Your task to perform on an android device: Open calendar and show me the first week of next month Image 0: 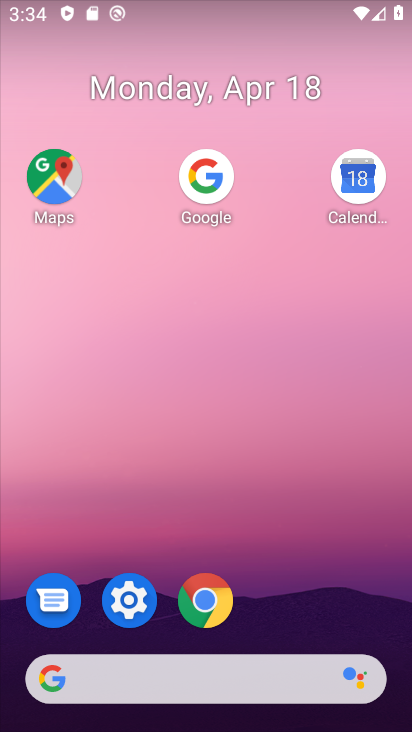
Step 0: click (356, 177)
Your task to perform on an android device: Open calendar and show me the first week of next month Image 1: 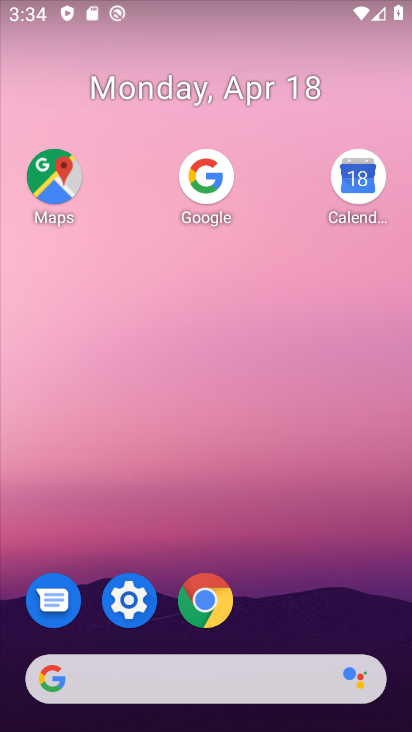
Step 1: click (356, 177)
Your task to perform on an android device: Open calendar and show me the first week of next month Image 2: 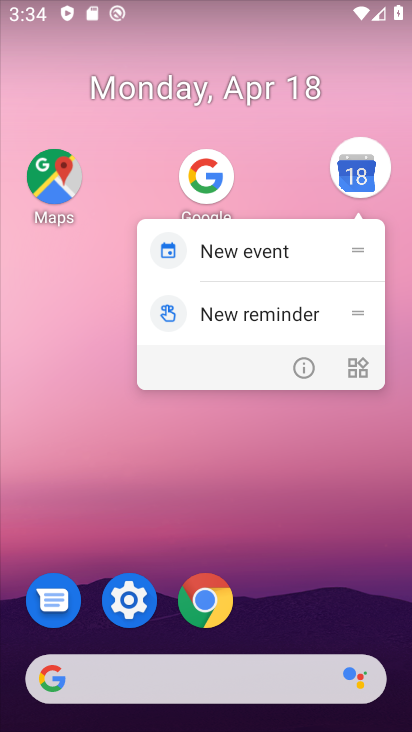
Step 2: click (359, 167)
Your task to perform on an android device: Open calendar and show me the first week of next month Image 3: 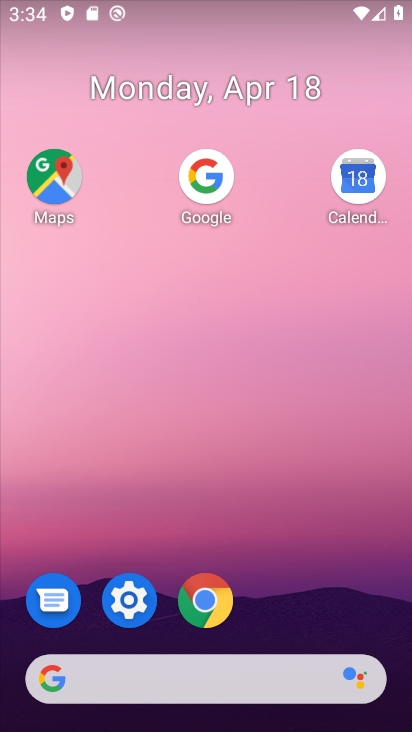
Step 3: click (358, 186)
Your task to perform on an android device: Open calendar and show me the first week of next month Image 4: 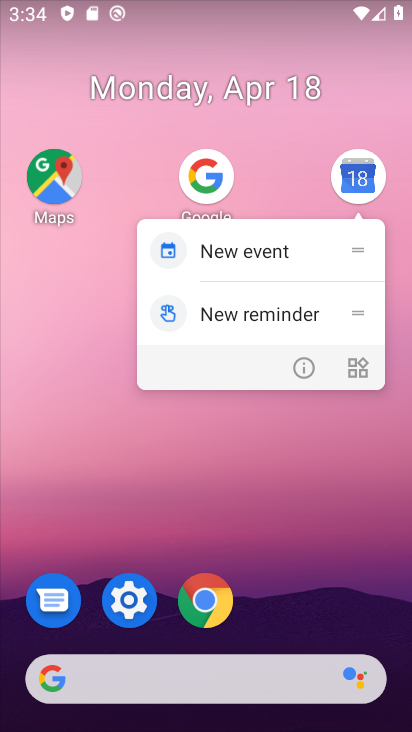
Step 4: click (358, 186)
Your task to perform on an android device: Open calendar and show me the first week of next month Image 5: 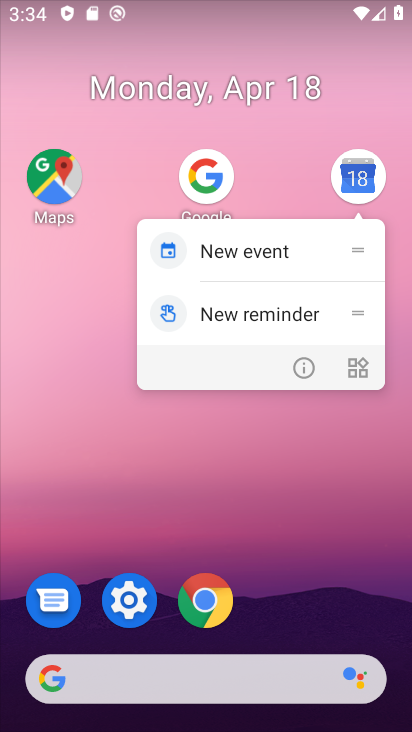
Step 5: click (358, 186)
Your task to perform on an android device: Open calendar and show me the first week of next month Image 6: 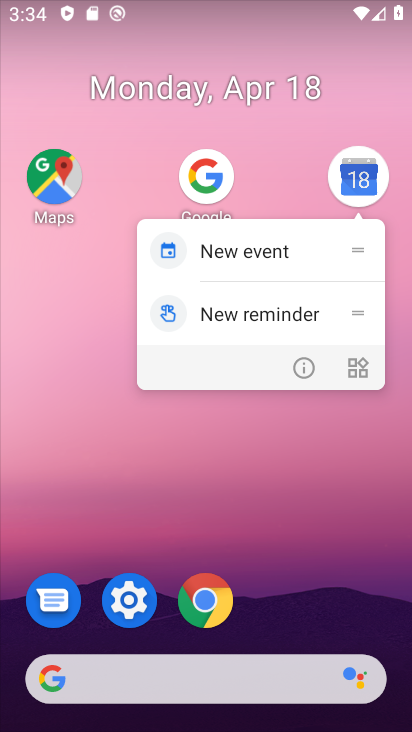
Step 6: click (358, 186)
Your task to perform on an android device: Open calendar and show me the first week of next month Image 7: 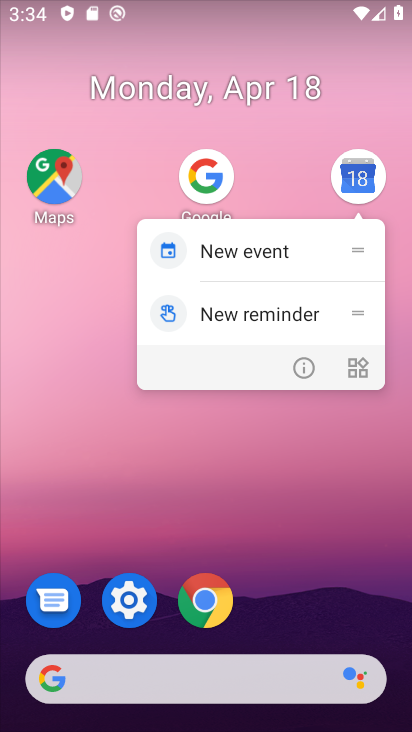
Step 7: drag from (359, 184) to (352, 238)
Your task to perform on an android device: Open calendar and show me the first week of next month Image 8: 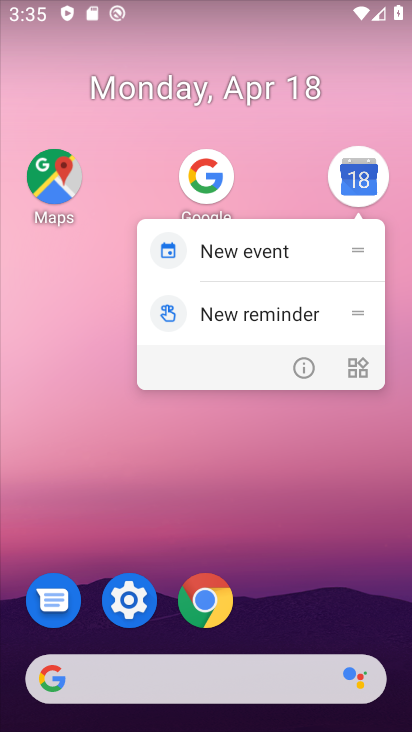
Step 8: click (355, 175)
Your task to perform on an android device: Open calendar and show me the first week of next month Image 9: 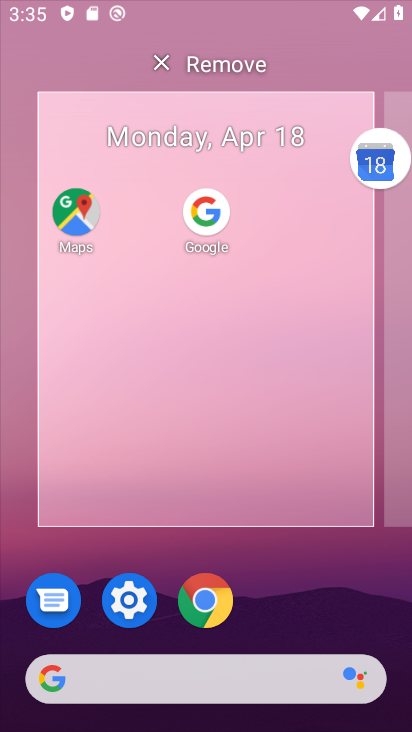
Step 9: click (359, 169)
Your task to perform on an android device: Open calendar and show me the first week of next month Image 10: 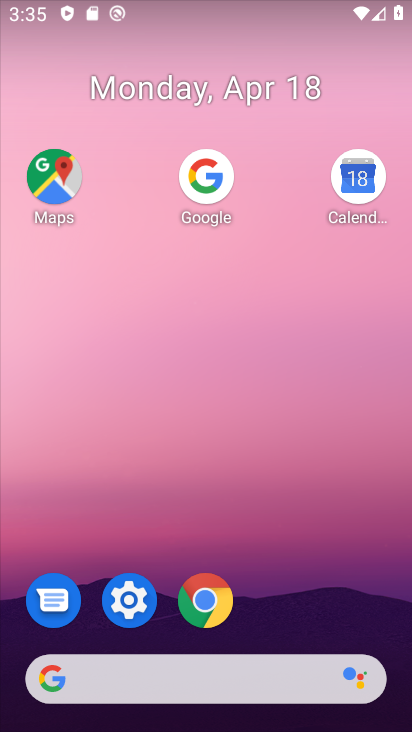
Step 10: click (352, 180)
Your task to perform on an android device: Open calendar and show me the first week of next month Image 11: 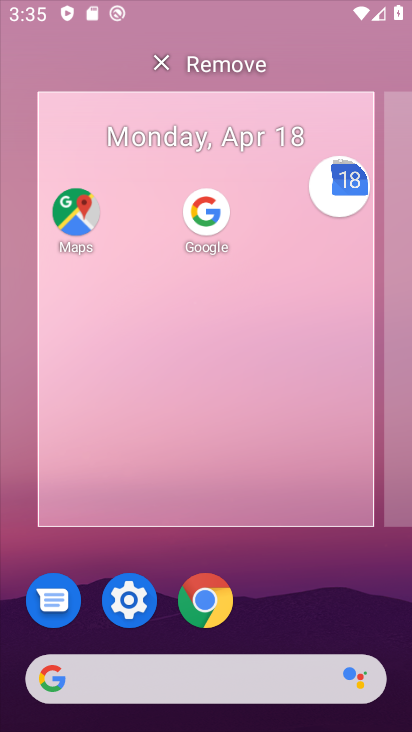
Step 11: click (346, 176)
Your task to perform on an android device: Open calendar and show me the first week of next month Image 12: 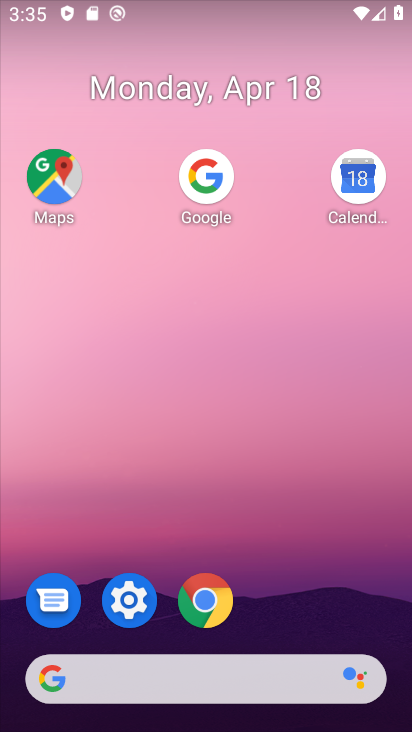
Step 12: click (356, 178)
Your task to perform on an android device: Open calendar and show me the first week of next month Image 13: 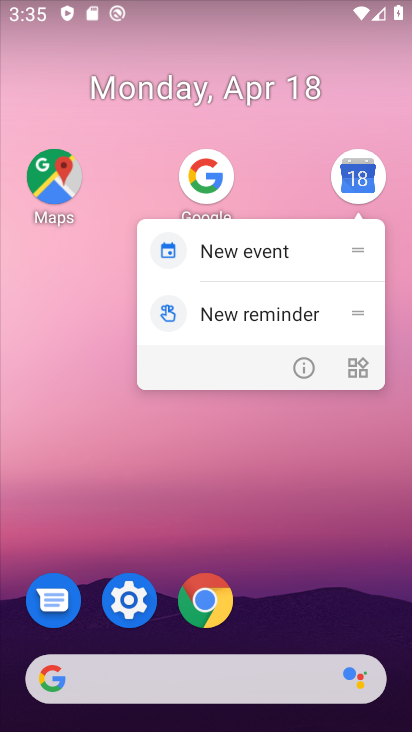
Step 13: click (356, 178)
Your task to perform on an android device: Open calendar and show me the first week of next month Image 14: 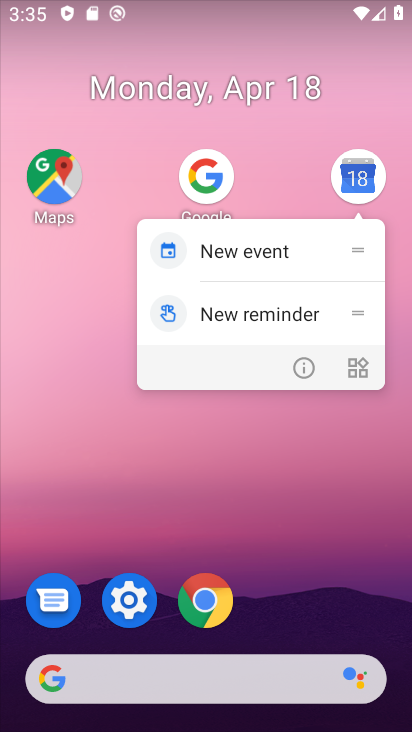
Step 14: click (357, 176)
Your task to perform on an android device: Open calendar and show me the first week of next month Image 15: 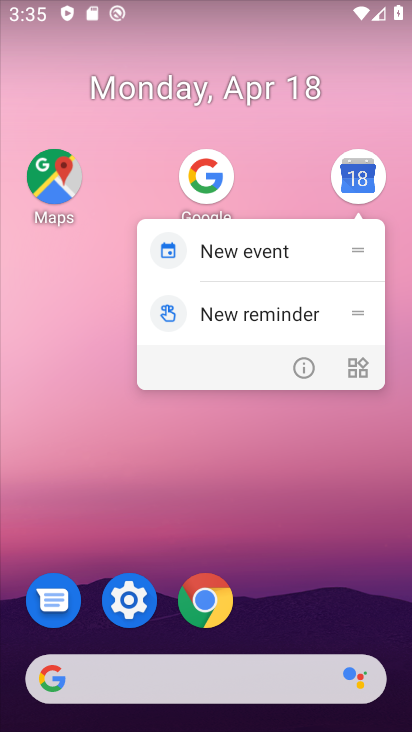
Step 15: click (362, 174)
Your task to perform on an android device: Open calendar and show me the first week of next month Image 16: 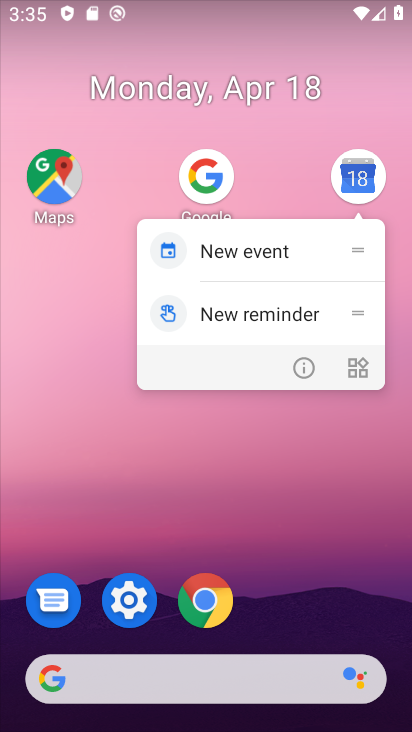
Step 16: click (362, 175)
Your task to perform on an android device: Open calendar and show me the first week of next month Image 17: 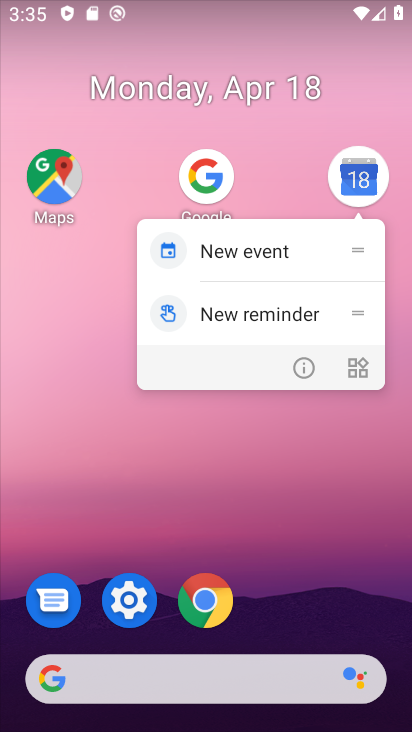
Step 17: click (362, 175)
Your task to perform on an android device: Open calendar and show me the first week of next month Image 18: 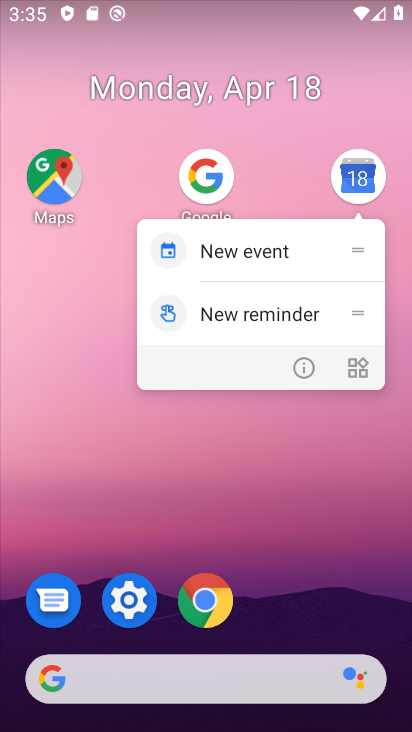
Step 18: click (365, 181)
Your task to perform on an android device: Open calendar and show me the first week of next month Image 19: 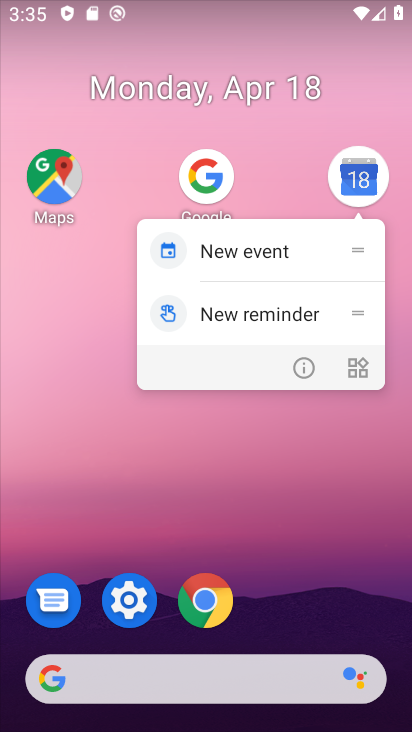
Step 19: click (362, 183)
Your task to perform on an android device: Open calendar and show me the first week of next month Image 20: 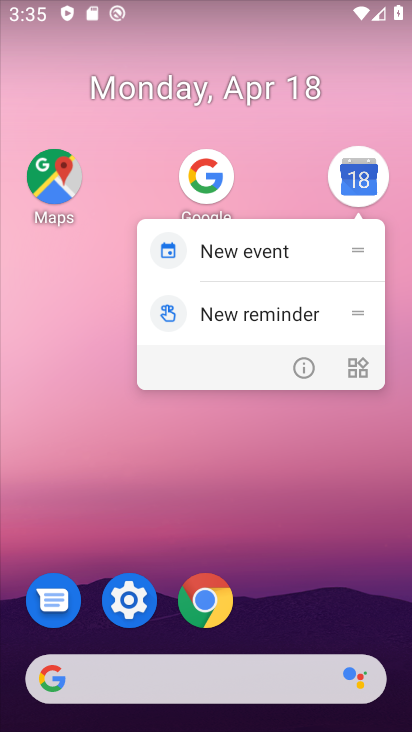
Step 20: click (364, 184)
Your task to perform on an android device: Open calendar and show me the first week of next month Image 21: 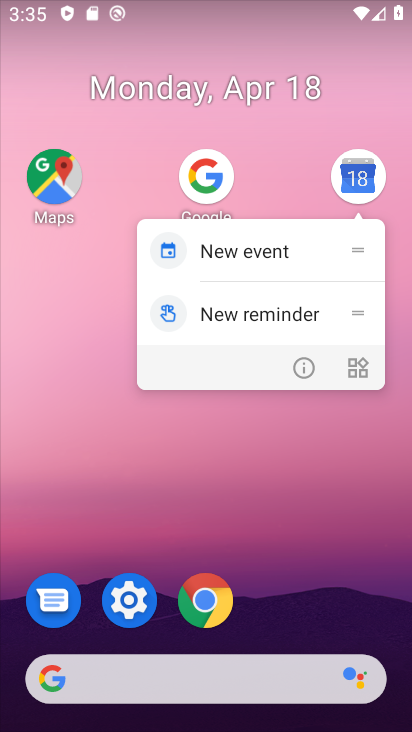
Step 21: click (363, 188)
Your task to perform on an android device: Open calendar and show me the first week of next month Image 22: 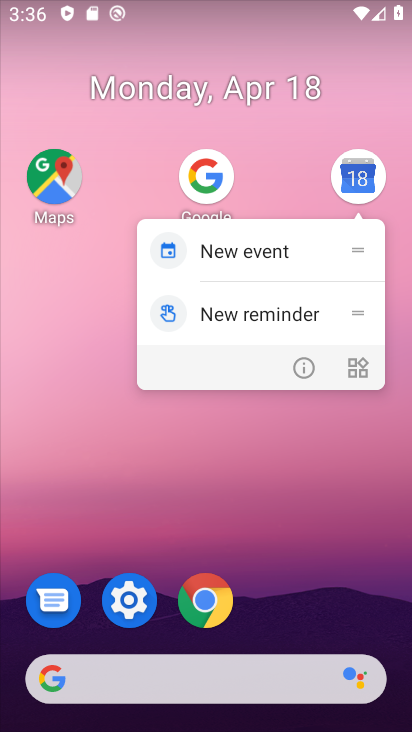
Step 22: click (270, 247)
Your task to perform on an android device: Open calendar and show me the first week of next month Image 23: 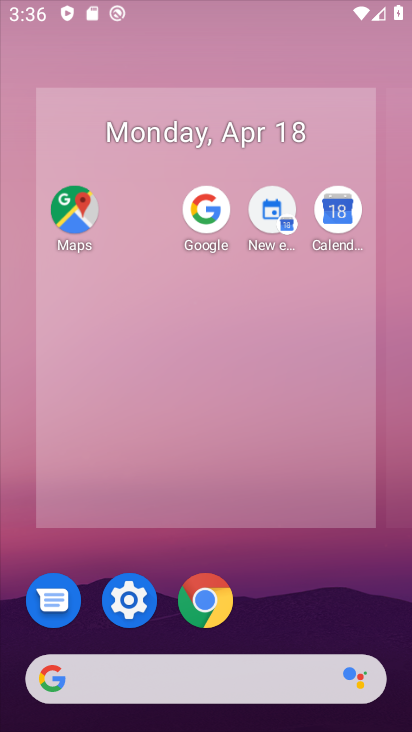
Step 23: click (270, 247)
Your task to perform on an android device: Open calendar and show me the first week of next month Image 24: 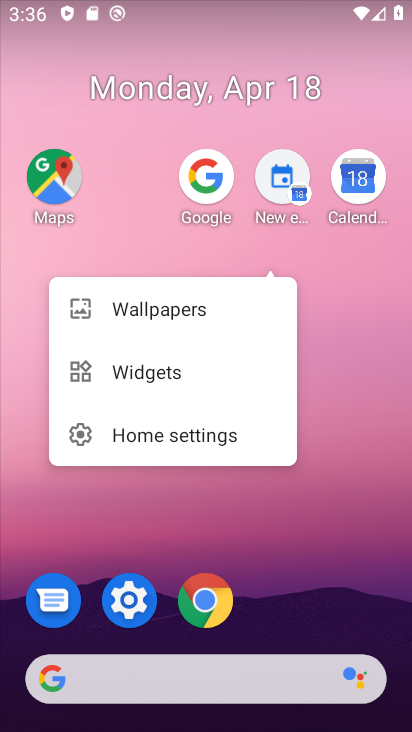
Step 24: click (346, 334)
Your task to perform on an android device: Open calendar and show me the first week of next month Image 25: 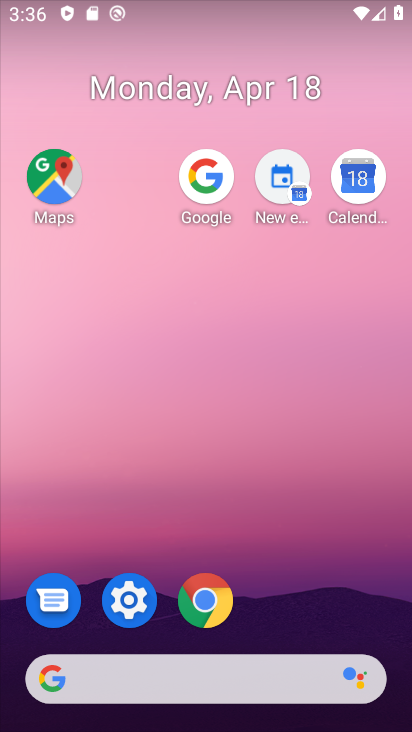
Step 25: click (367, 197)
Your task to perform on an android device: Open calendar and show me the first week of next month Image 26: 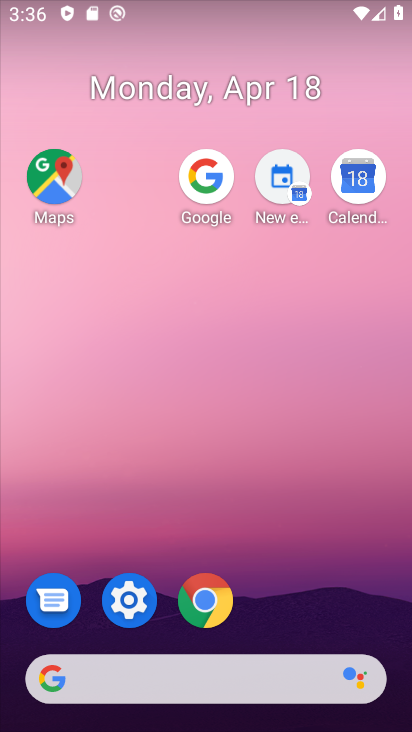
Step 26: drag from (367, 197) to (313, 437)
Your task to perform on an android device: Open calendar and show me the first week of next month Image 27: 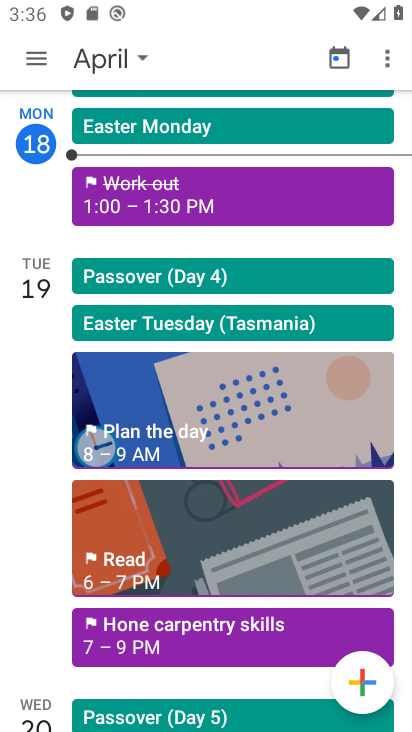
Step 27: click (140, 56)
Your task to perform on an android device: Open calendar and show me the first week of next month Image 28: 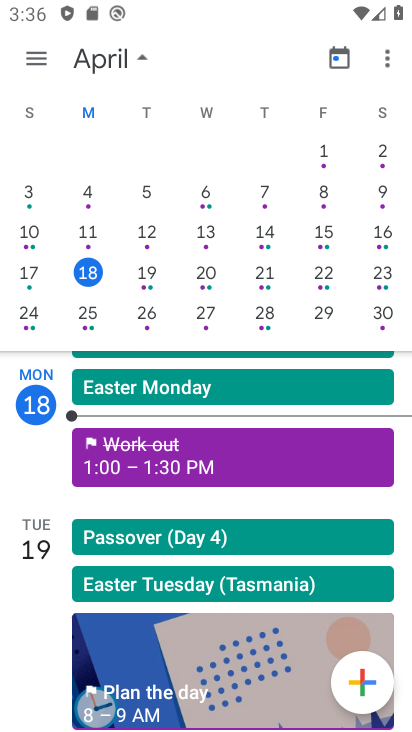
Step 28: drag from (243, 291) to (152, 292)
Your task to perform on an android device: Open calendar and show me the first week of next month Image 29: 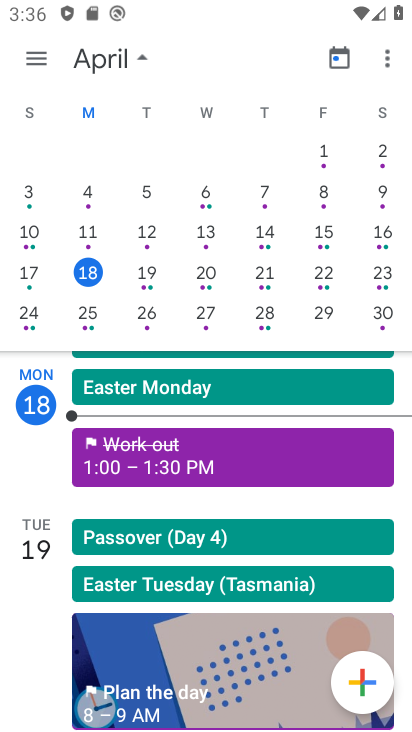
Step 29: click (20, 199)
Your task to perform on an android device: Open calendar and show me the first week of next month Image 30: 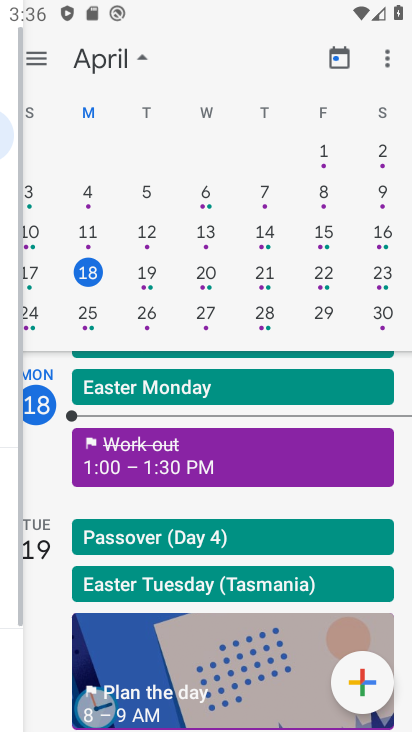
Step 30: drag from (208, 271) to (82, 294)
Your task to perform on an android device: Open calendar and show me the first week of next month Image 31: 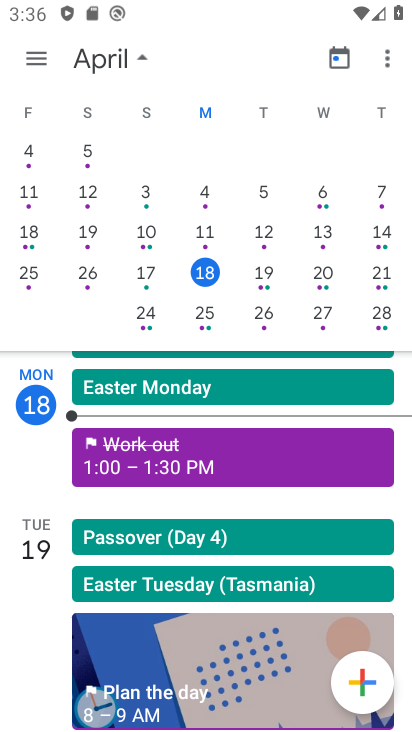
Step 31: drag from (162, 245) to (9, 225)
Your task to perform on an android device: Open calendar and show me the first week of next month Image 32: 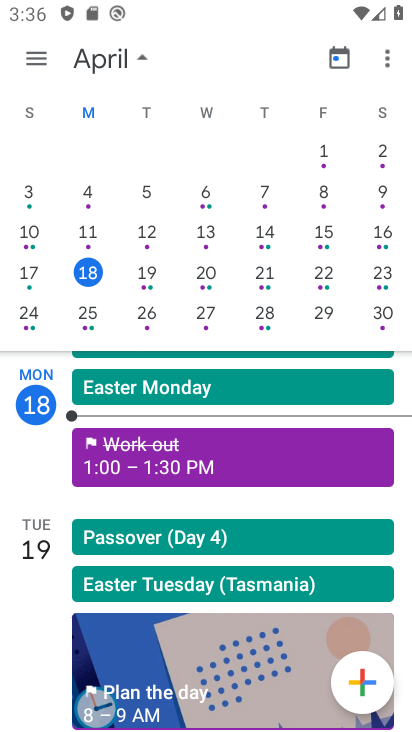
Step 32: drag from (151, 259) to (0, 289)
Your task to perform on an android device: Open calendar and show me the first week of next month Image 33: 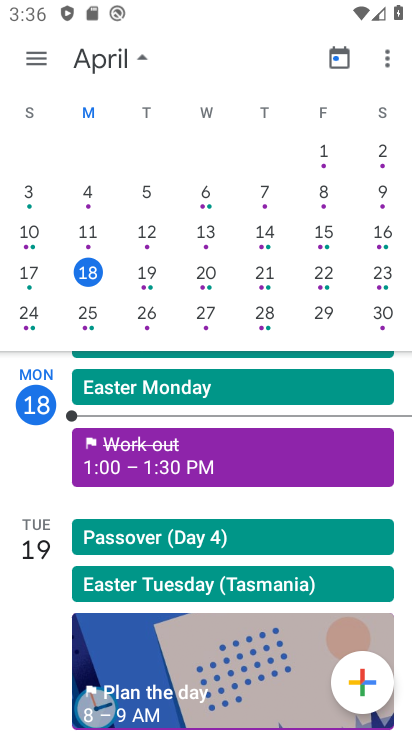
Step 33: drag from (194, 280) to (11, 250)
Your task to perform on an android device: Open calendar and show me the first week of next month Image 34: 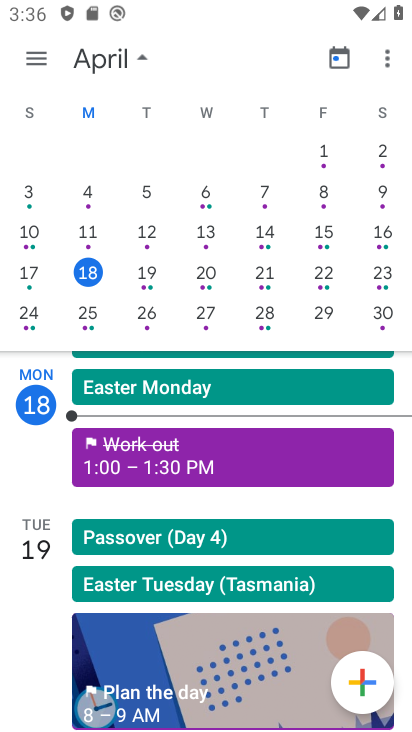
Step 34: drag from (248, 264) to (13, 314)
Your task to perform on an android device: Open calendar and show me the first week of next month Image 35: 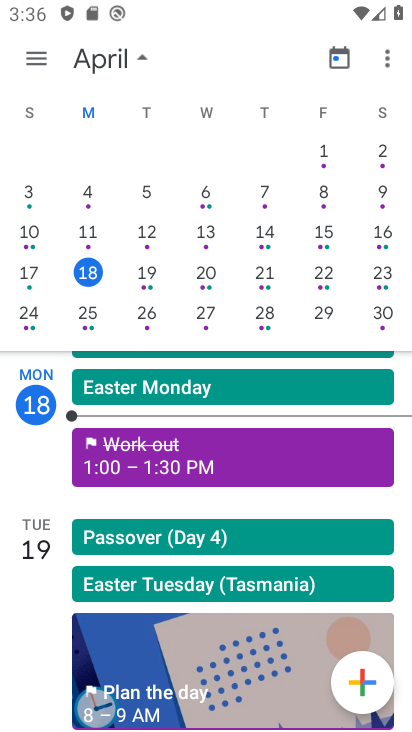
Step 35: drag from (215, 297) to (30, 263)
Your task to perform on an android device: Open calendar and show me the first week of next month Image 36: 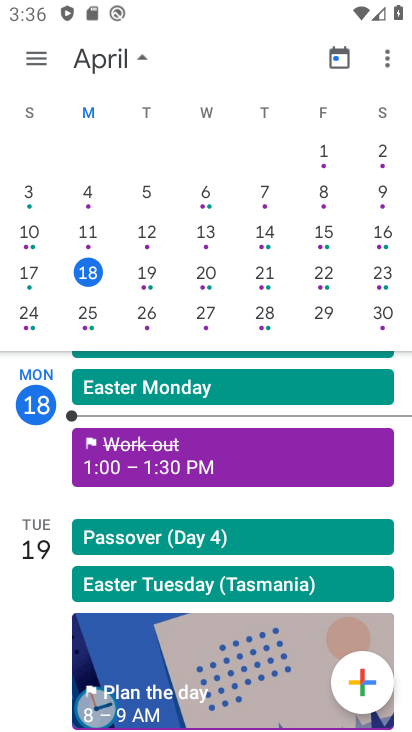
Step 36: drag from (203, 261) to (71, 248)
Your task to perform on an android device: Open calendar and show me the first week of next month Image 37: 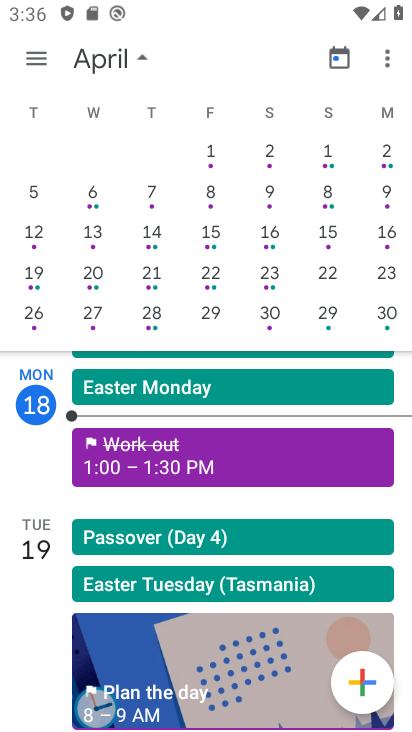
Step 37: drag from (123, 269) to (10, 272)
Your task to perform on an android device: Open calendar and show me the first week of next month Image 38: 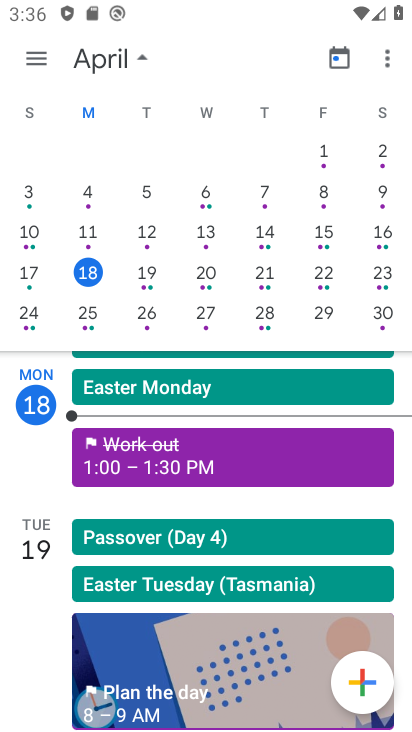
Step 38: drag from (183, 259) to (4, 259)
Your task to perform on an android device: Open calendar and show me the first week of next month Image 39: 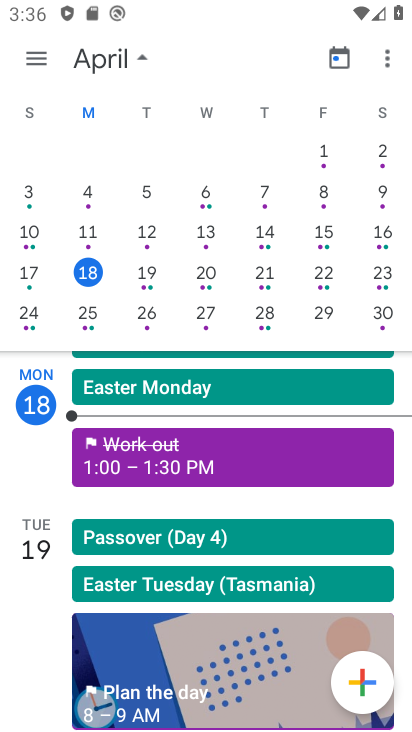
Step 39: drag from (188, 260) to (27, 240)
Your task to perform on an android device: Open calendar and show me the first week of next month Image 40: 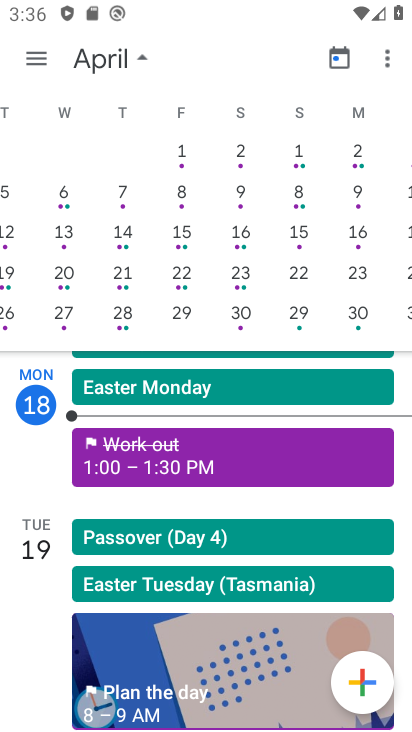
Step 40: drag from (108, 238) to (60, 335)
Your task to perform on an android device: Open calendar and show me the first week of next month Image 41: 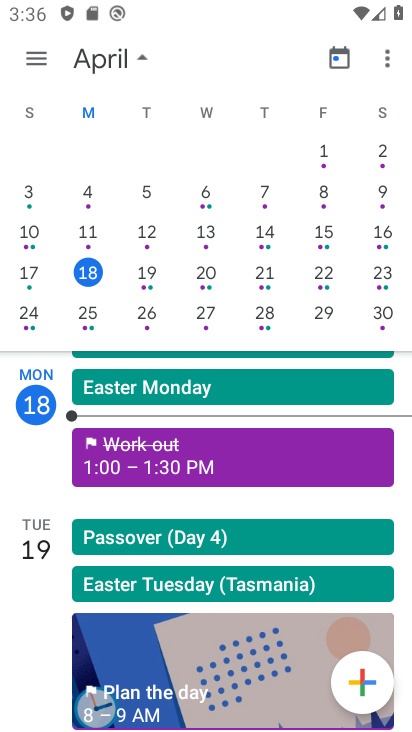
Step 41: drag from (192, 254) to (0, 225)
Your task to perform on an android device: Open calendar and show me the first week of next month Image 42: 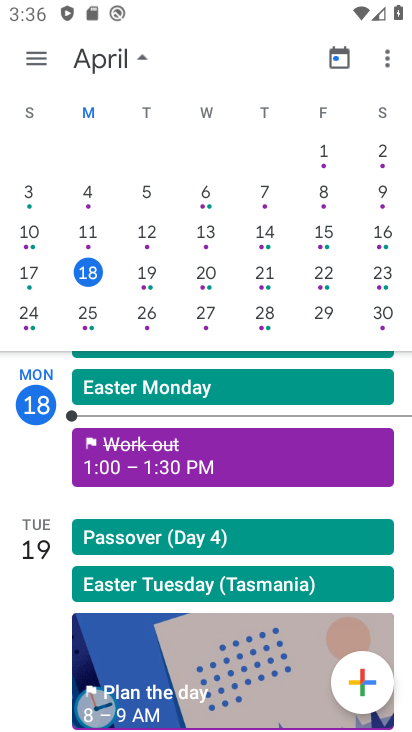
Step 42: drag from (205, 270) to (7, 214)
Your task to perform on an android device: Open calendar and show me the first week of next month Image 43: 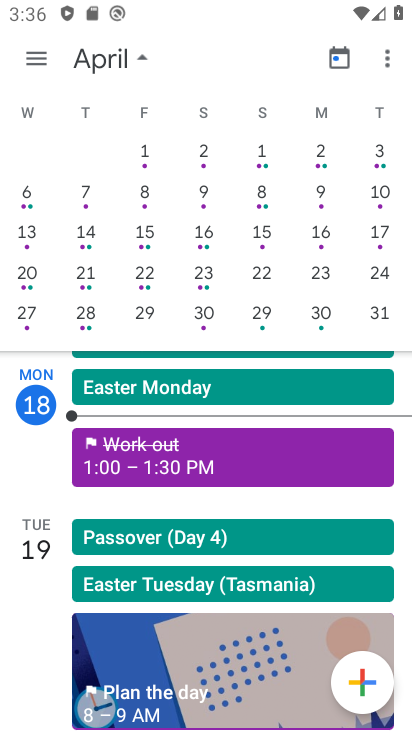
Step 43: drag from (185, 335) to (8, 267)
Your task to perform on an android device: Open calendar and show me the first week of next month Image 44: 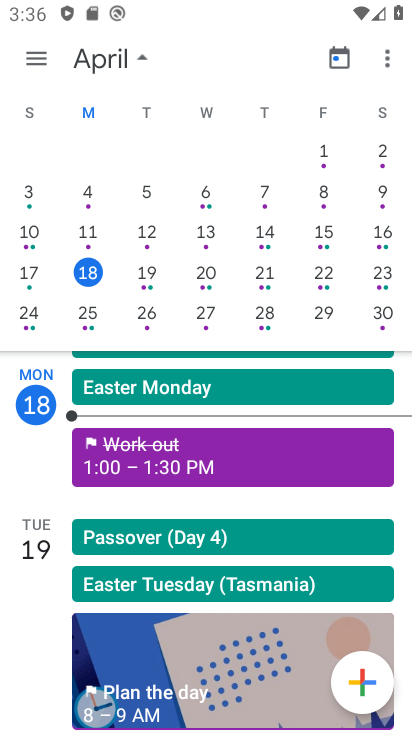
Step 44: drag from (238, 276) to (69, 250)
Your task to perform on an android device: Open calendar and show me the first week of next month Image 45: 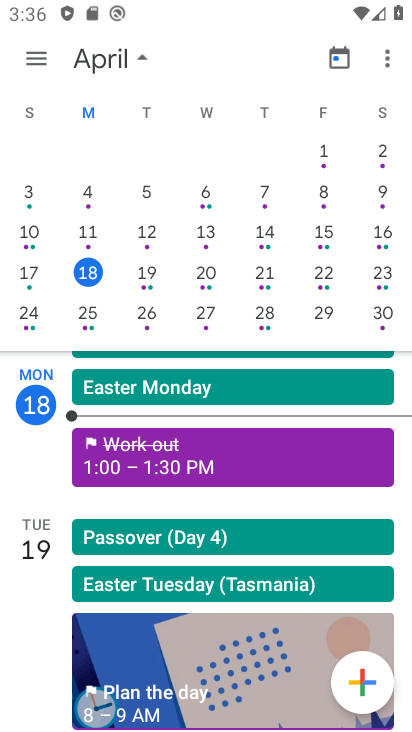
Step 45: drag from (186, 262) to (32, 281)
Your task to perform on an android device: Open calendar and show me the first week of next month Image 46: 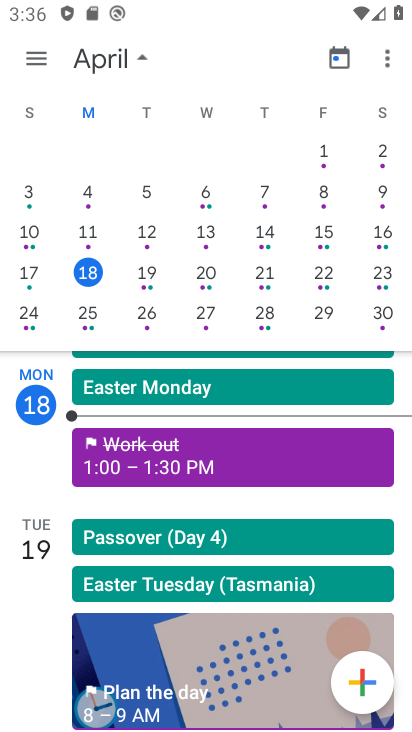
Step 46: drag from (280, 252) to (35, 274)
Your task to perform on an android device: Open calendar and show me the first week of next month Image 47: 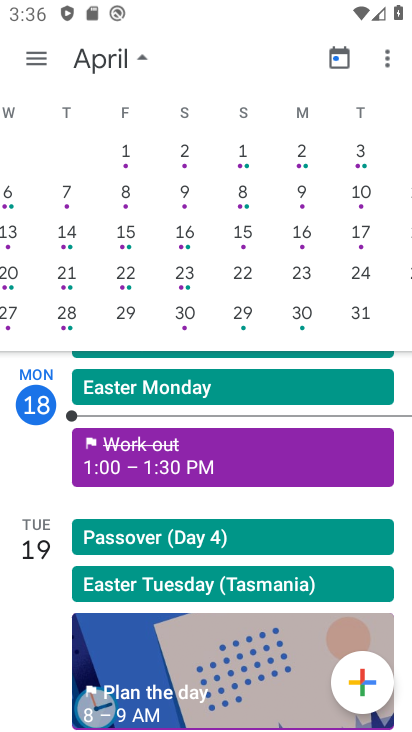
Step 47: drag from (225, 270) to (15, 246)
Your task to perform on an android device: Open calendar and show me the first week of next month Image 48: 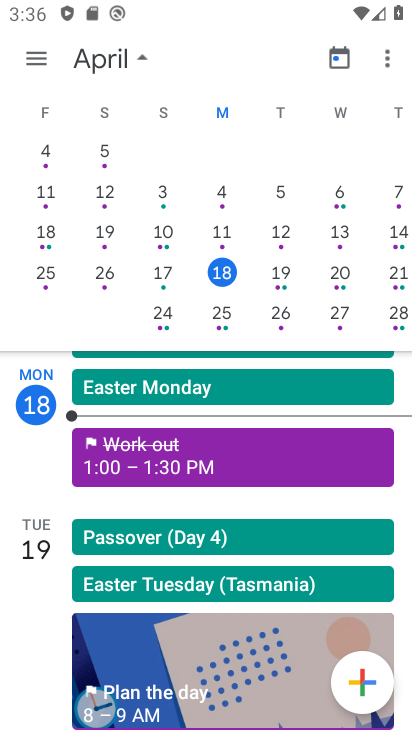
Step 48: drag from (207, 225) to (121, 274)
Your task to perform on an android device: Open calendar and show me the first week of next month Image 49: 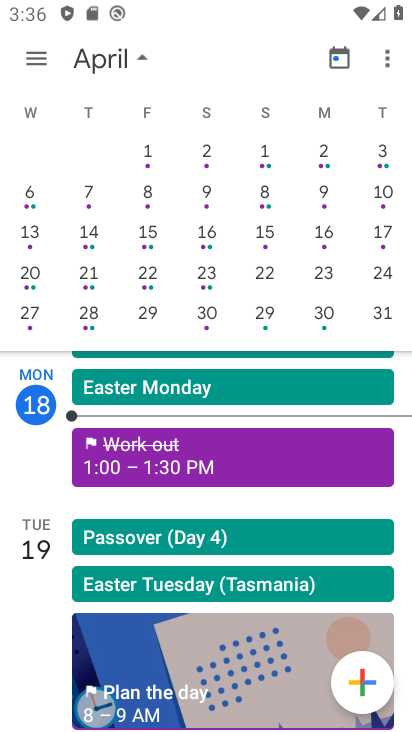
Step 49: drag from (183, 284) to (35, 288)
Your task to perform on an android device: Open calendar and show me the first week of next month Image 50: 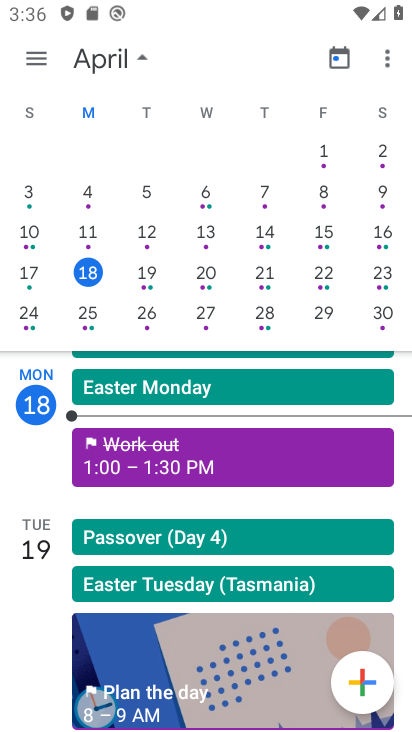
Step 50: drag from (181, 269) to (232, 363)
Your task to perform on an android device: Open calendar and show me the first week of next month Image 51: 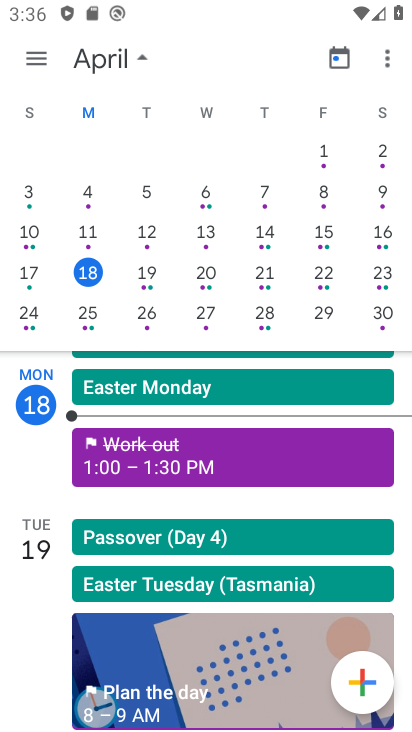
Step 51: drag from (344, 242) to (48, 221)
Your task to perform on an android device: Open calendar and show me the first week of next month Image 52: 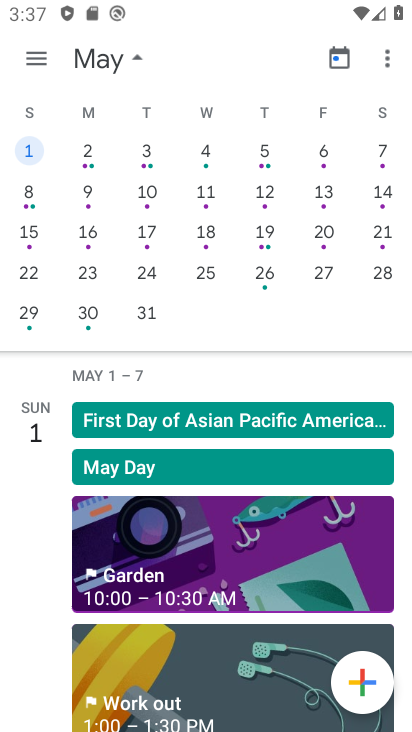
Step 52: drag from (302, 242) to (12, 236)
Your task to perform on an android device: Open calendar and show me the first week of next month Image 53: 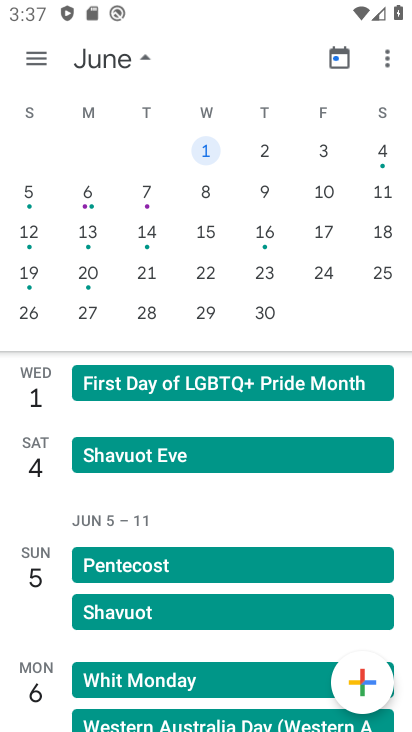
Step 53: drag from (53, 244) to (383, 225)
Your task to perform on an android device: Open calendar and show me the first week of next month Image 54: 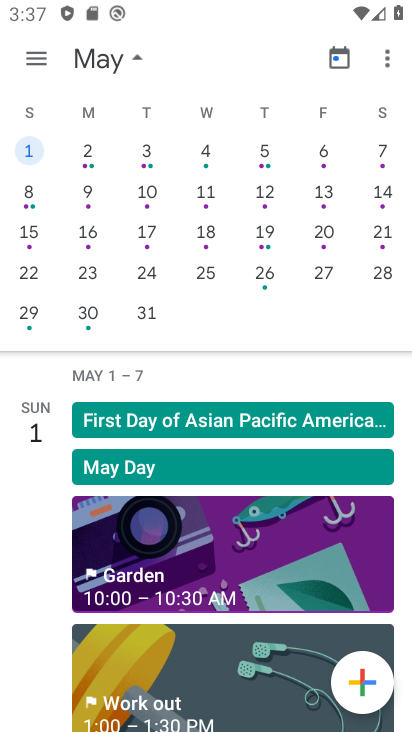
Step 54: click (90, 149)
Your task to perform on an android device: Open calendar and show me the first week of next month Image 55: 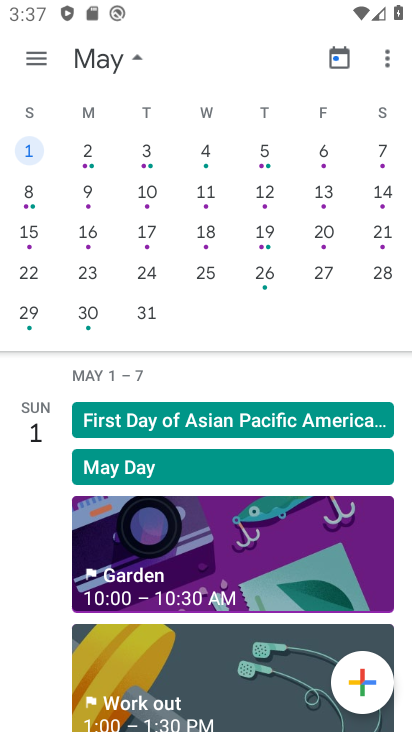
Step 55: click (80, 159)
Your task to perform on an android device: Open calendar and show me the first week of next month Image 56: 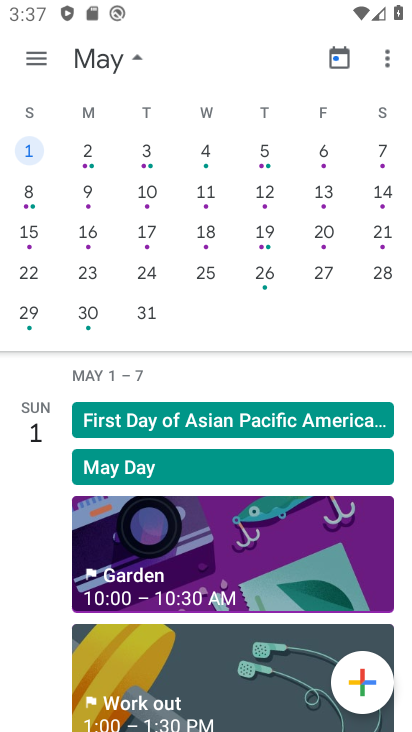
Step 56: task complete